Your task to perform on an android device: Go to CNN.com Image 0: 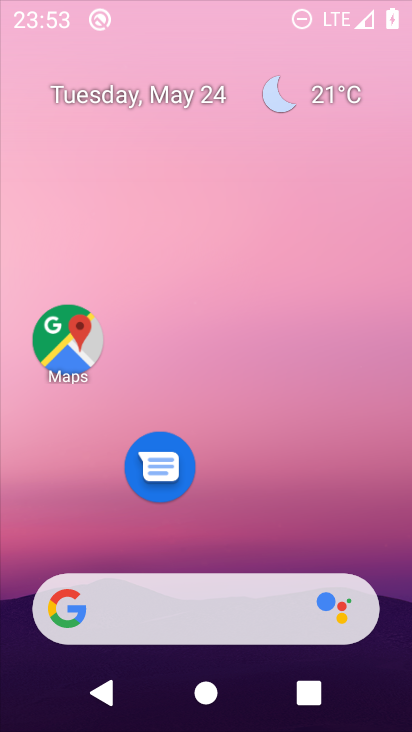
Step 0: click (232, 207)
Your task to perform on an android device: Go to CNN.com Image 1: 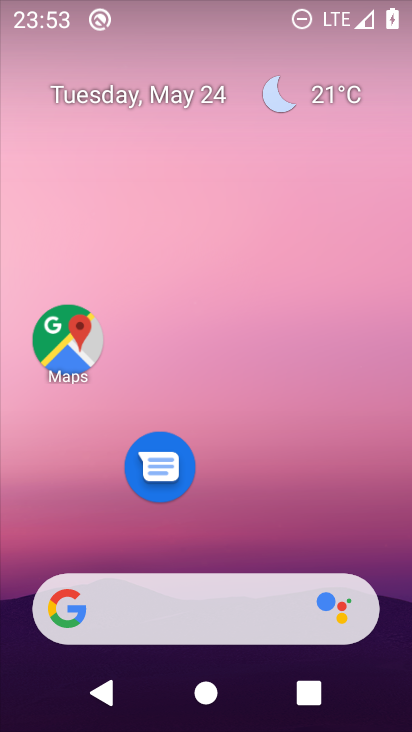
Step 1: drag from (210, 534) to (198, 135)
Your task to perform on an android device: Go to CNN.com Image 2: 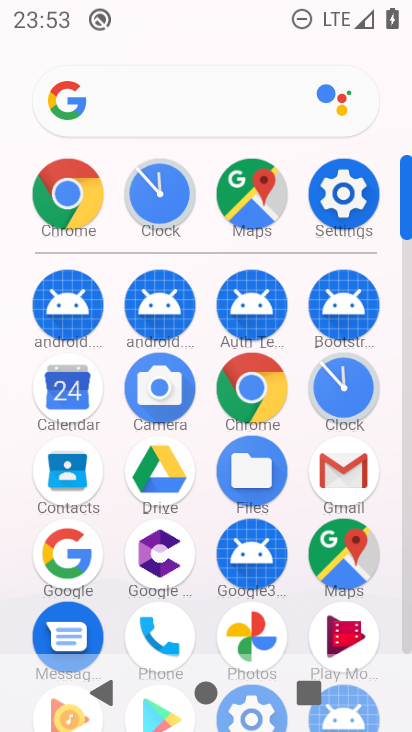
Step 2: click (208, 110)
Your task to perform on an android device: Go to CNN.com Image 3: 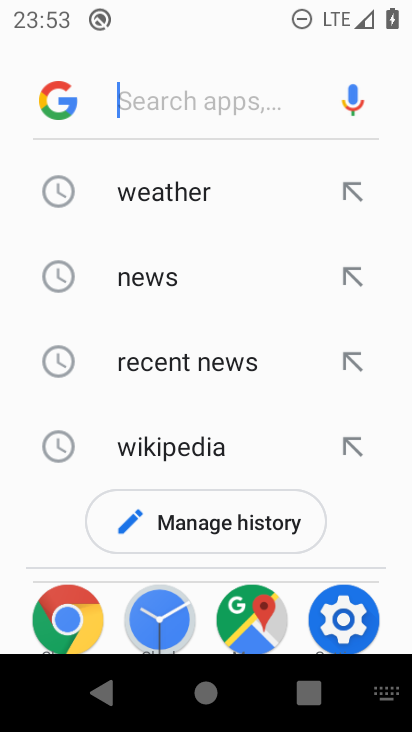
Step 3: type "CNN.com"
Your task to perform on an android device: Go to CNN.com Image 4: 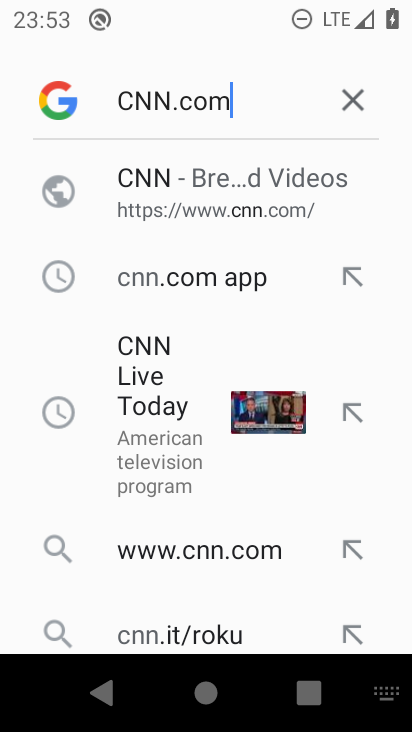
Step 4: type ""
Your task to perform on an android device: Go to CNN.com Image 5: 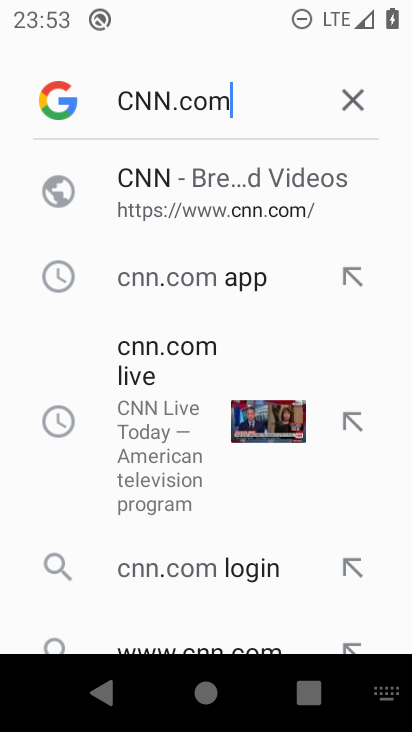
Step 5: click (122, 200)
Your task to perform on an android device: Go to CNN.com Image 6: 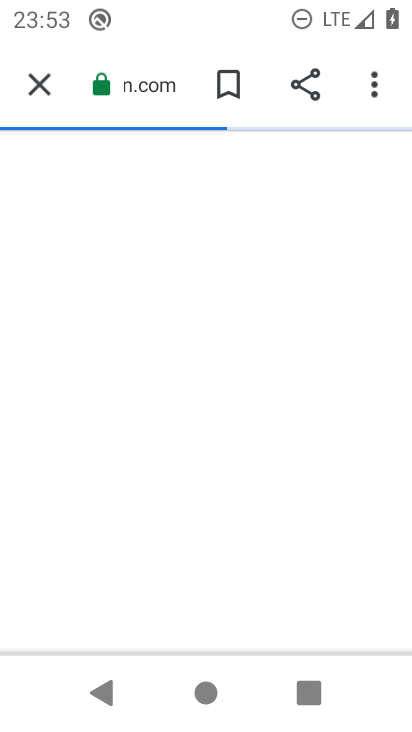
Step 6: task complete